Your task to perform on an android device: Search for dell alienware on costco.com, select the first entry, and add it to the cart. Image 0: 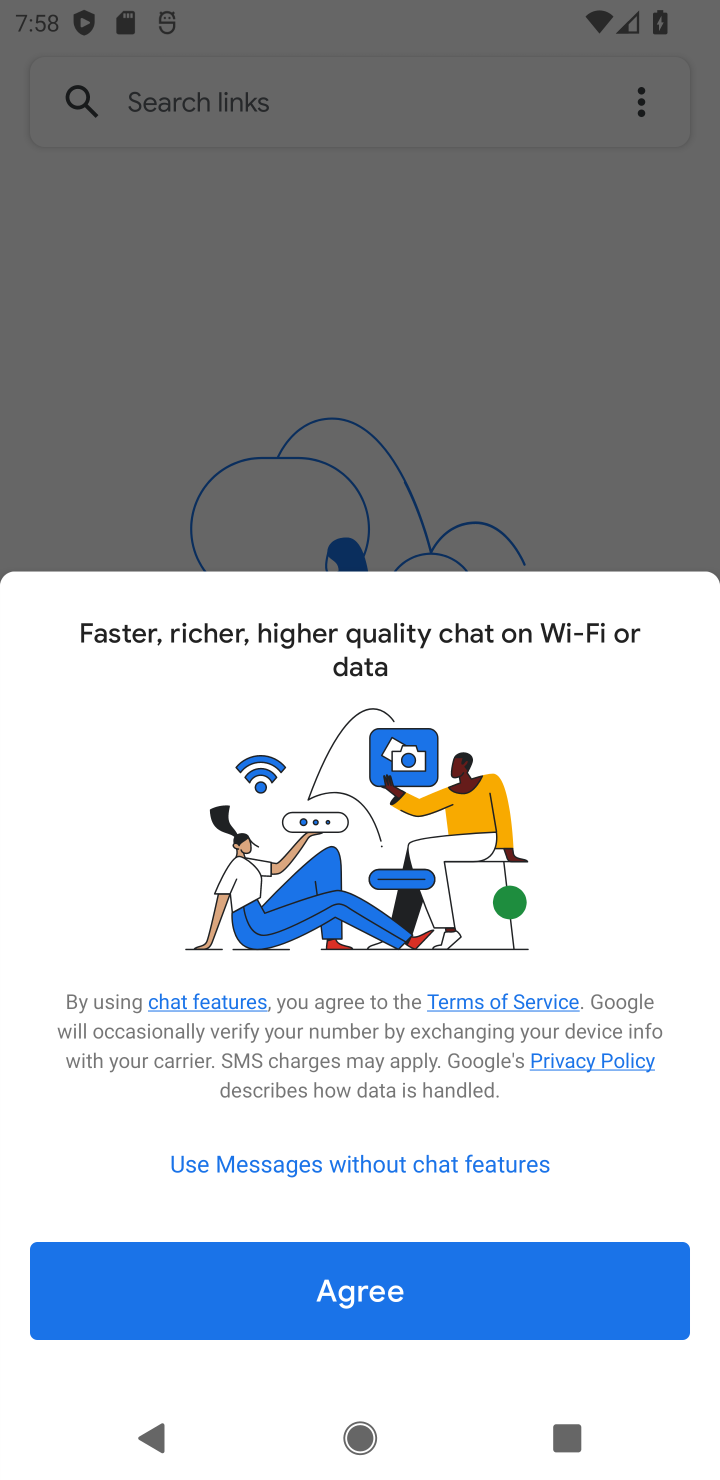
Step 0: press home button
Your task to perform on an android device: Search for dell alienware on costco.com, select the first entry, and add it to the cart. Image 1: 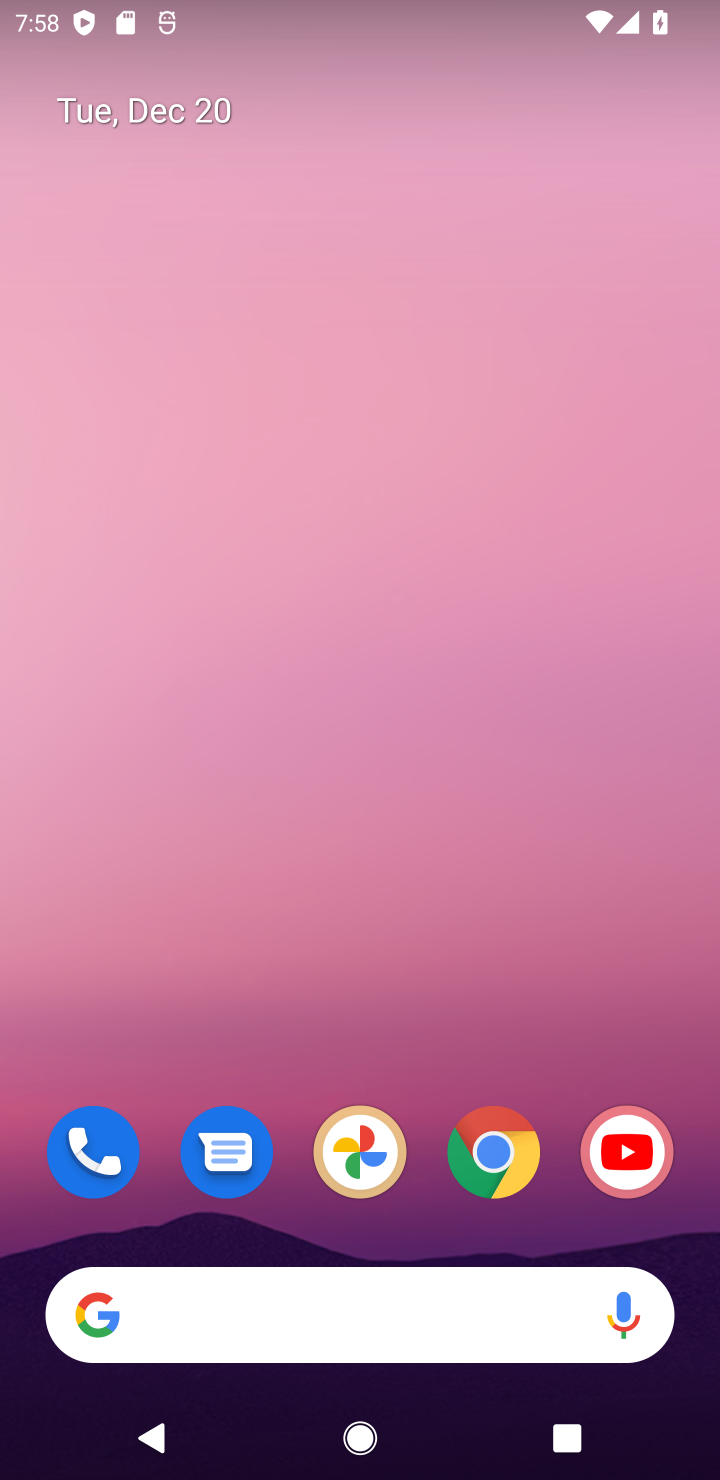
Step 1: click (472, 1137)
Your task to perform on an android device: Search for dell alienware on costco.com, select the first entry, and add it to the cart. Image 2: 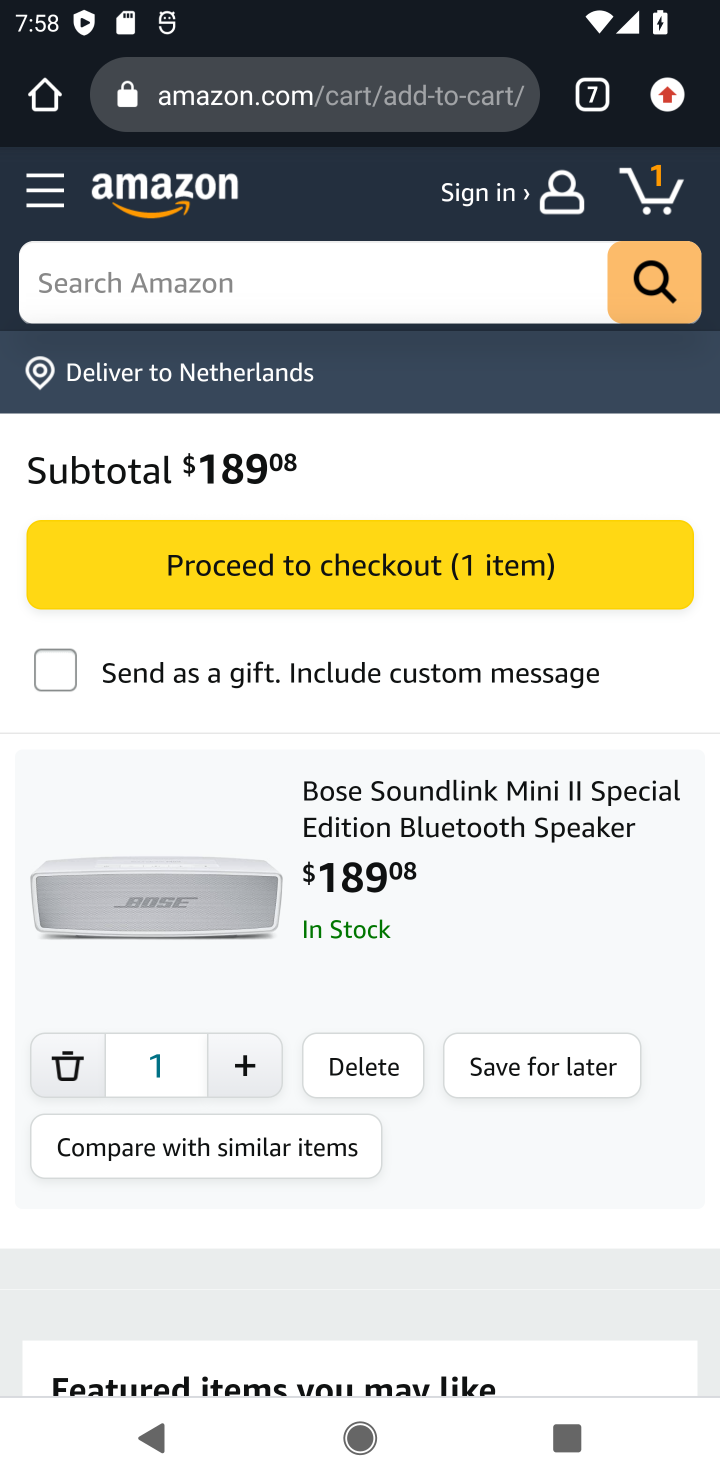
Step 2: click (598, 93)
Your task to perform on an android device: Search for dell alienware on costco.com, select the first entry, and add it to the cart. Image 3: 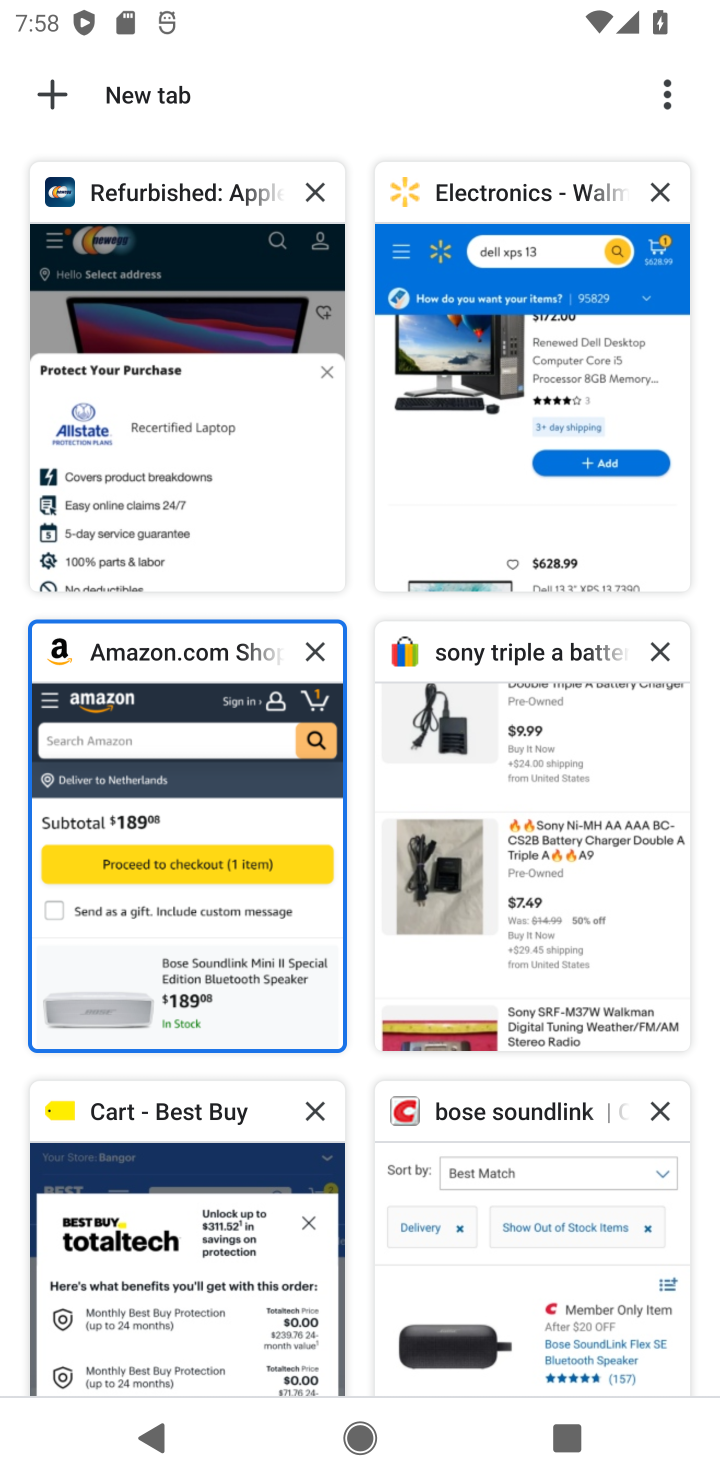
Step 3: click (485, 1223)
Your task to perform on an android device: Search for dell alienware on costco.com, select the first entry, and add it to the cart. Image 4: 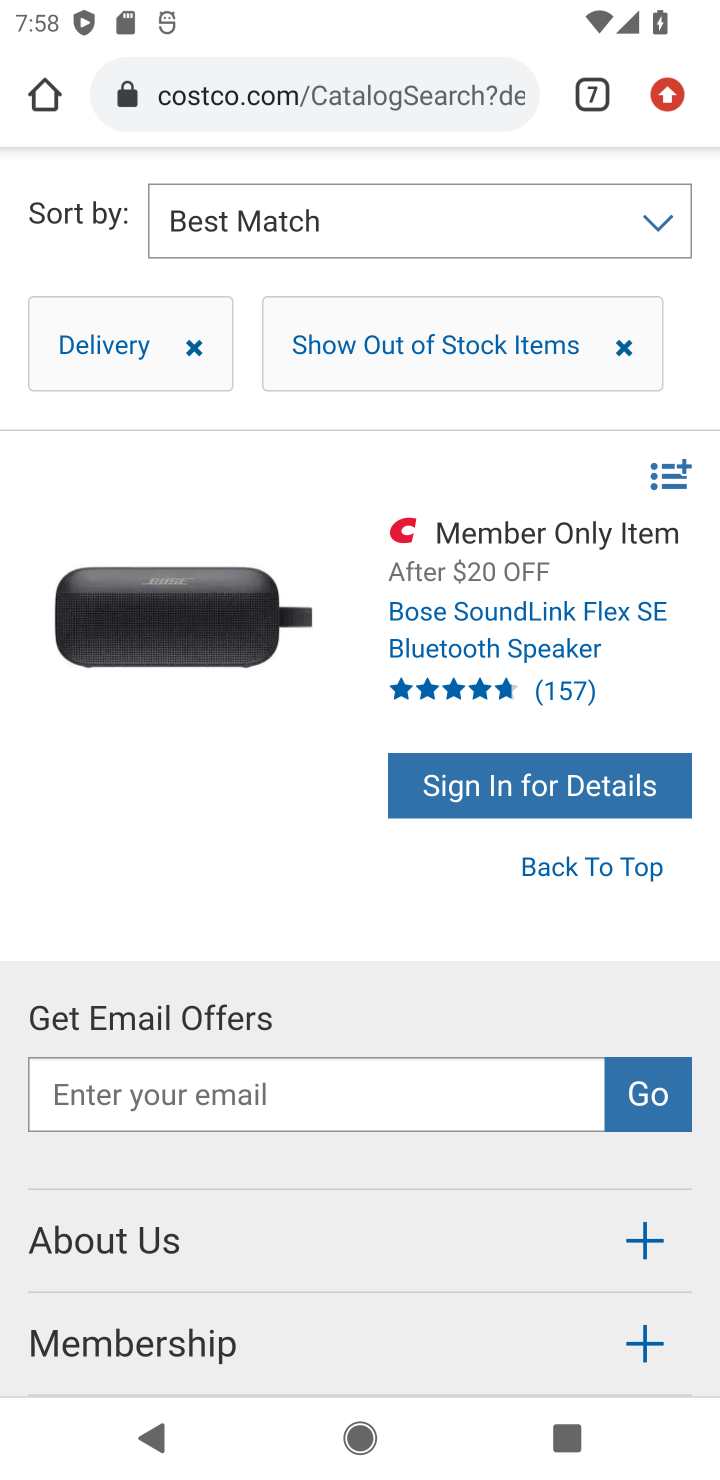
Step 4: drag from (363, 241) to (152, 1167)
Your task to perform on an android device: Search for dell alienware on costco.com, select the first entry, and add it to the cart. Image 5: 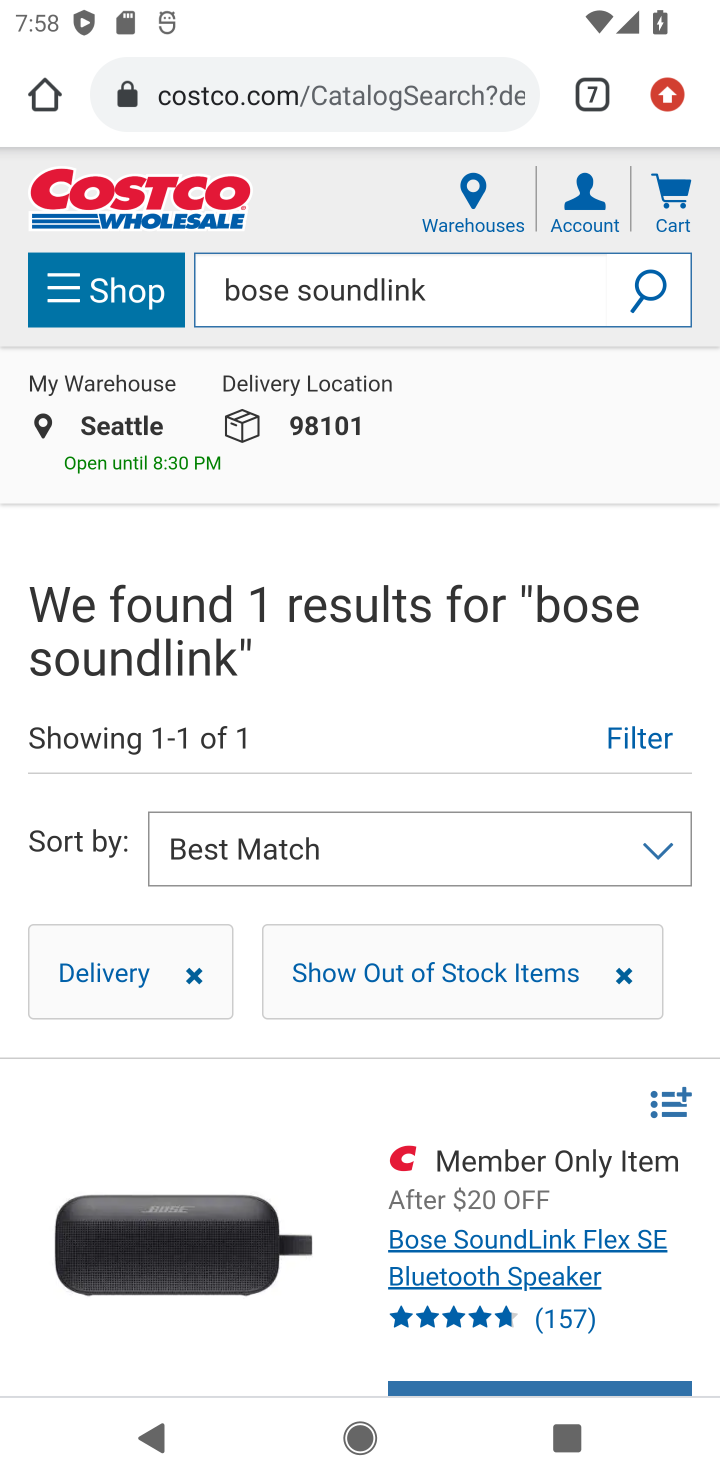
Step 5: click (416, 296)
Your task to perform on an android device: Search for dell alienware on costco.com, select the first entry, and add it to the cart. Image 6: 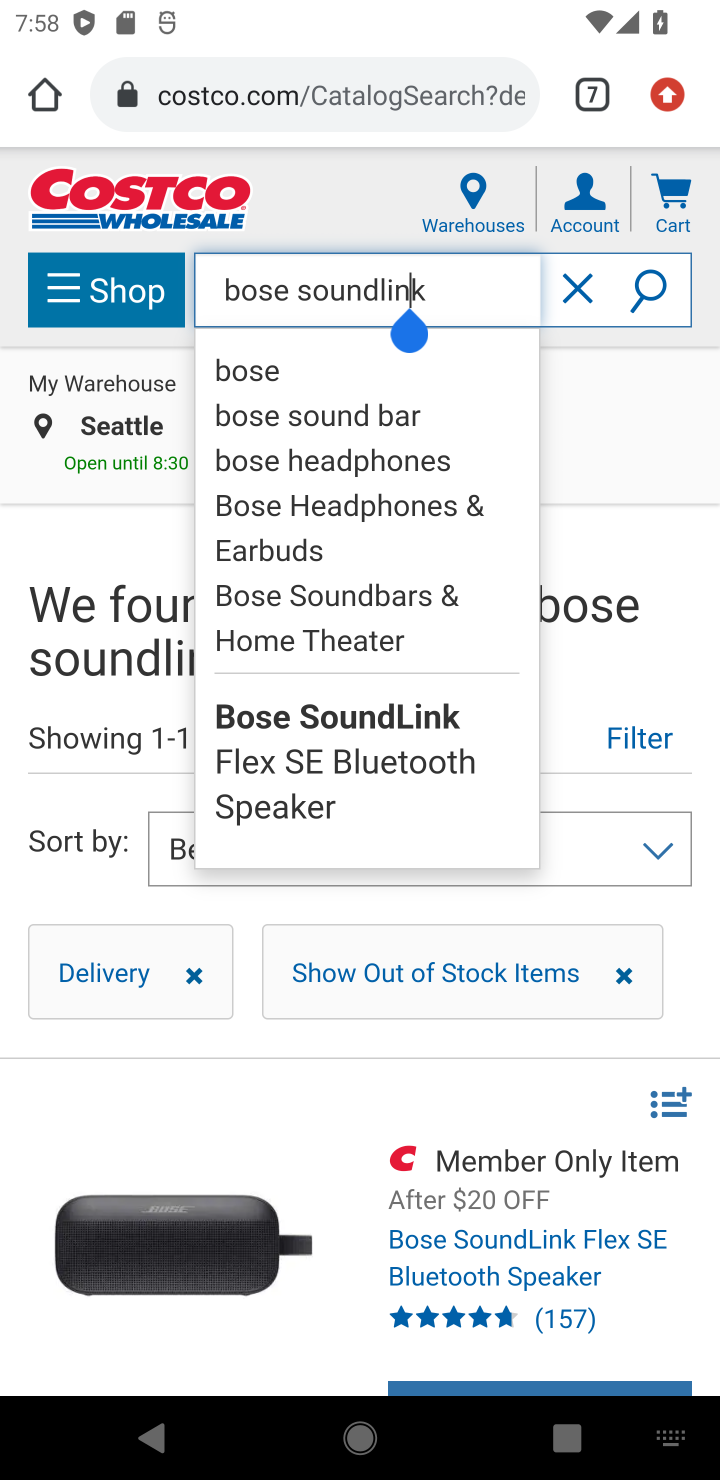
Step 6: click (569, 291)
Your task to perform on an android device: Search for dell alienware on costco.com, select the first entry, and add it to the cart. Image 7: 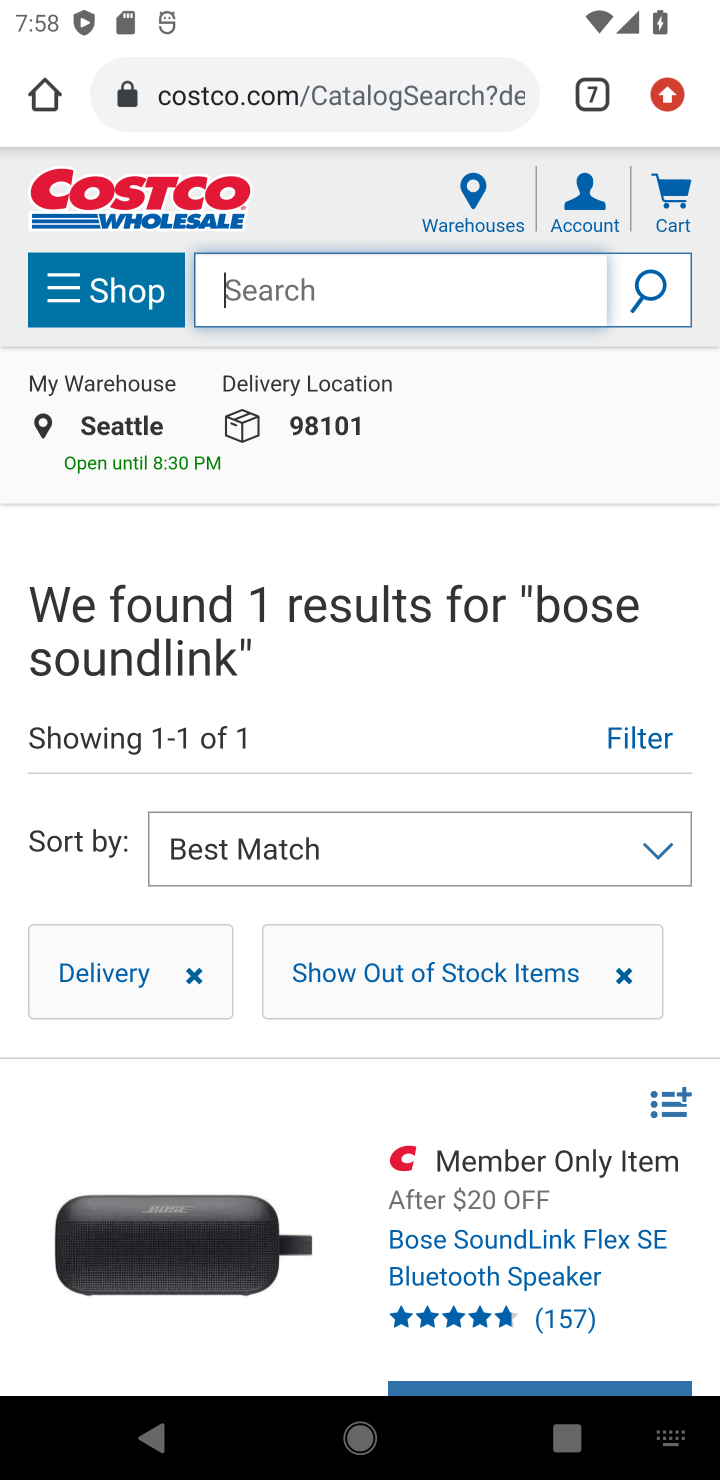
Step 7: type "dell alienware"
Your task to perform on an android device: Search for dell alienware on costco.com, select the first entry, and add it to the cart. Image 8: 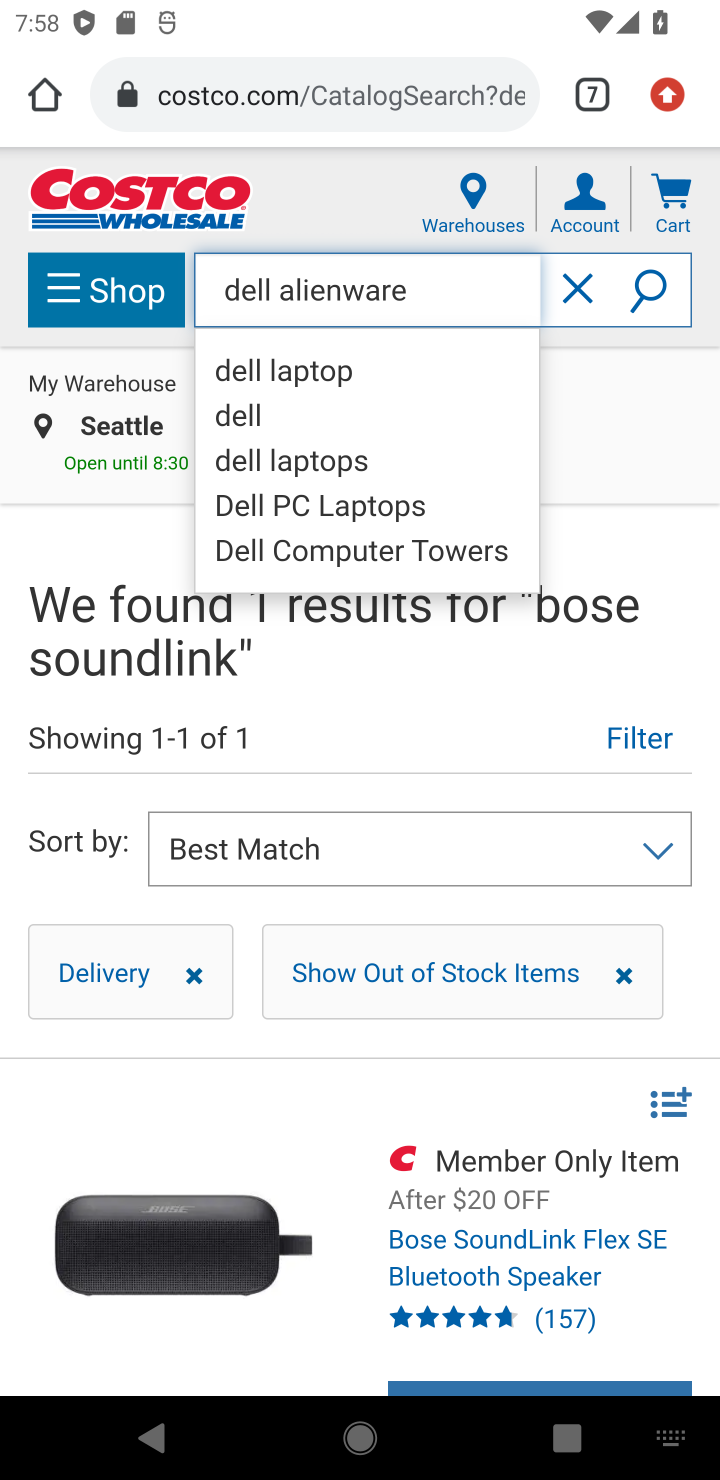
Step 8: click (657, 293)
Your task to perform on an android device: Search for dell alienware on costco.com, select the first entry, and add it to the cart. Image 9: 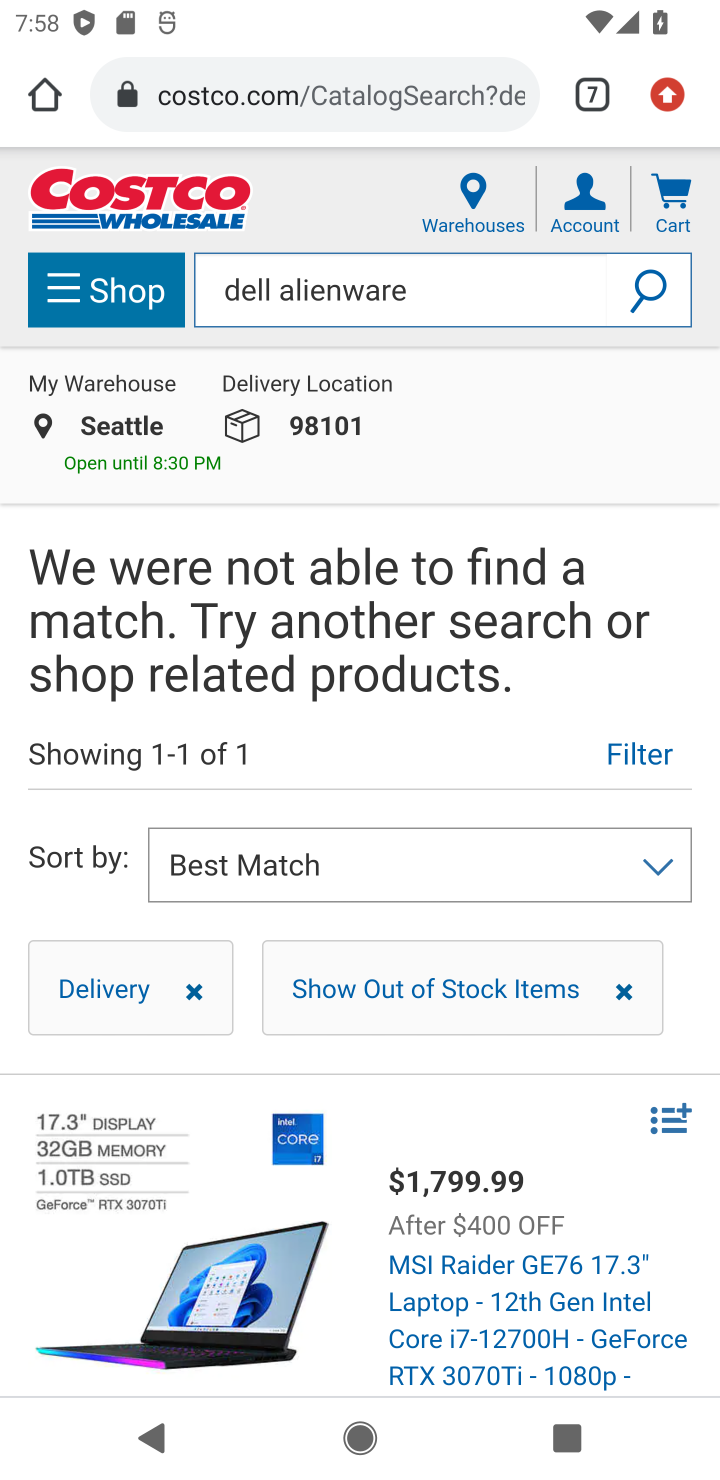
Step 9: task complete